Your task to perform on an android device: find snoozed emails in the gmail app Image 0: 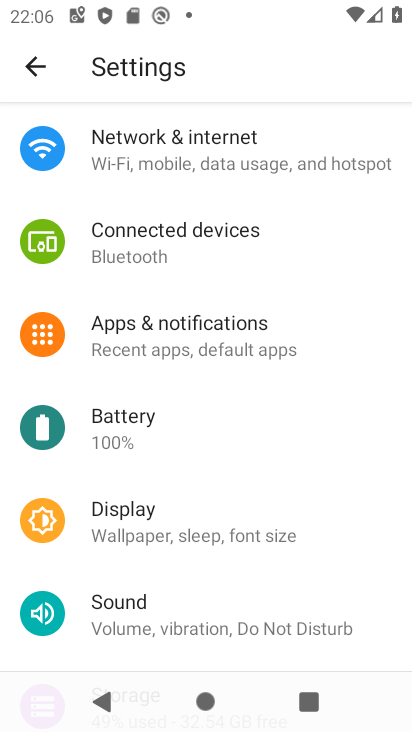
Step 0: press home button
Your task to perform on an android device: find snoozed emails in the gmail app Image 1: 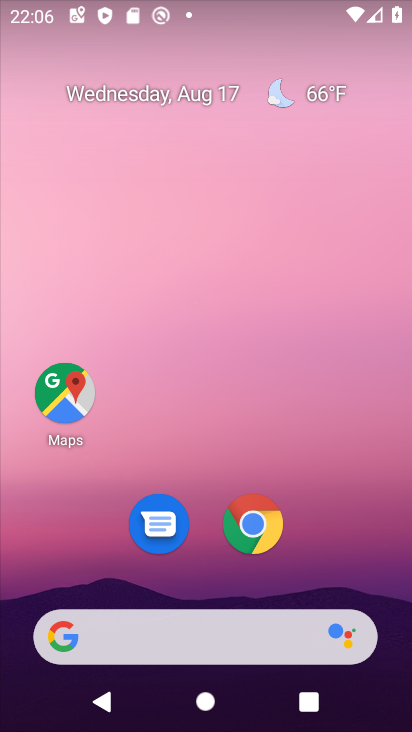
Step 1: drag from (330, 545) to (263, 0)
Your task to perform on an android device: find snoozed emails in the gmail app Image 2: 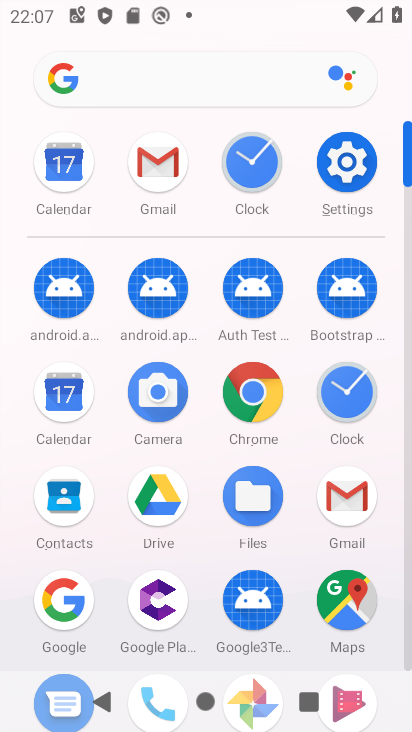
Step 2: click (350, 495)
Your task to perform on an android device: find snoozed emails in the gmail app Image 3: 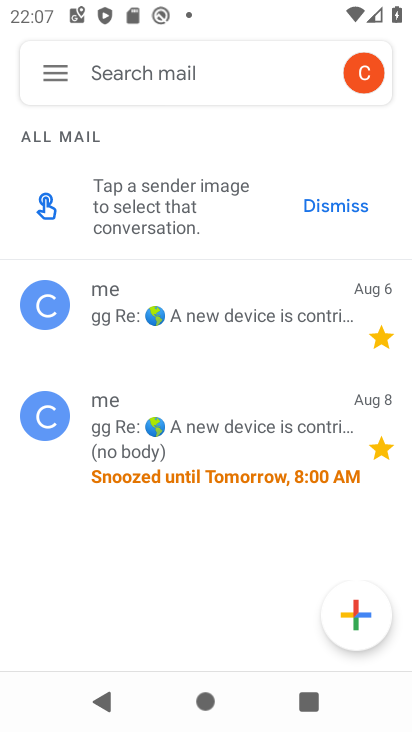
Step 3: click (57, 70)
Your task to perform on an android device: find snoozed emails in the gmail app Image 4: 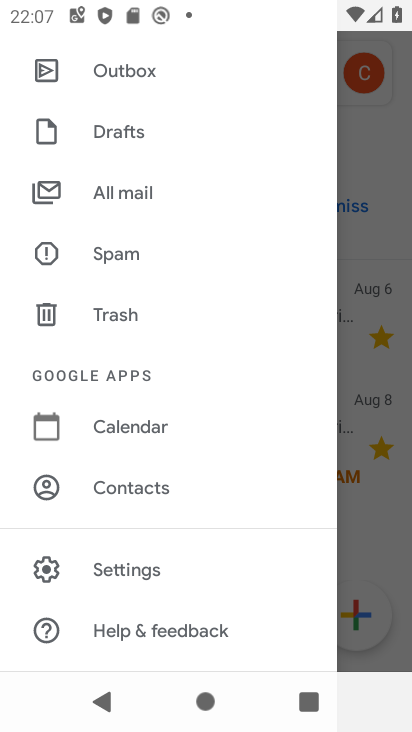
Step 4: drag from (196, 139) to (191, 608)
Your task to perform on an android device: find snoozed emails in the gmail app Image 5: 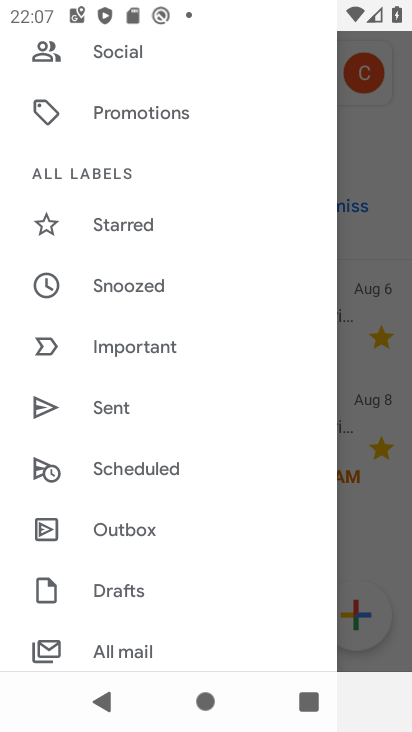
Step 5: click (145, 283)
Your task to perform on an android device: find snoozed emails in the gmail app Image 6: 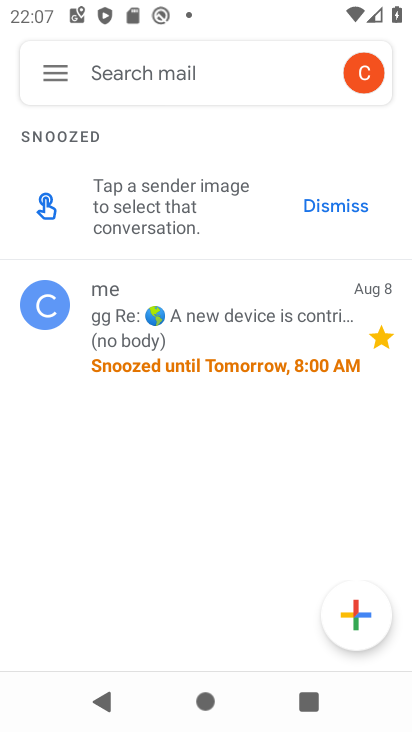
Step 6: task complete